Your task to perform on an android device: allow notifications from all sites in the chrome app Image 0: 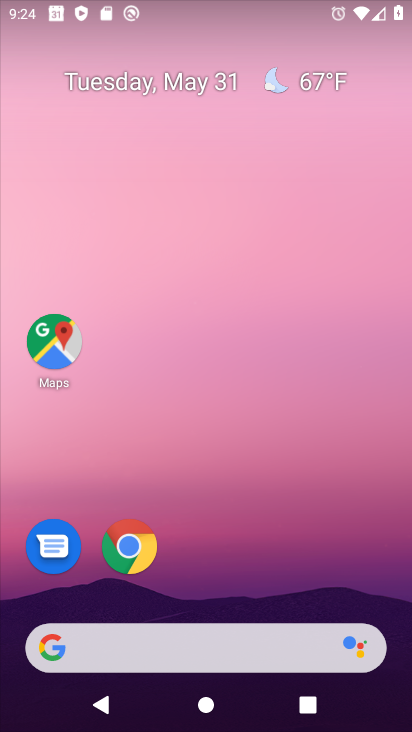
Step 0: click (133, 548)
Your task to perform on an android device: allow notifications from all sites in the chrome app Image 1: 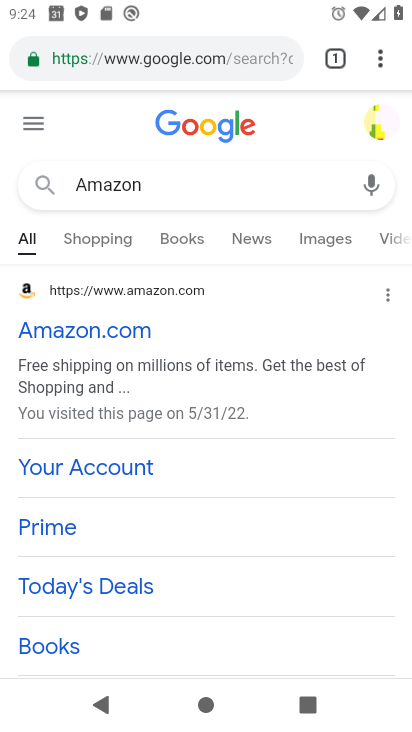
Step 1: click (386, 63)
Your task to perform on an android device: allow notifications from all sites in the chrome app Image 2: 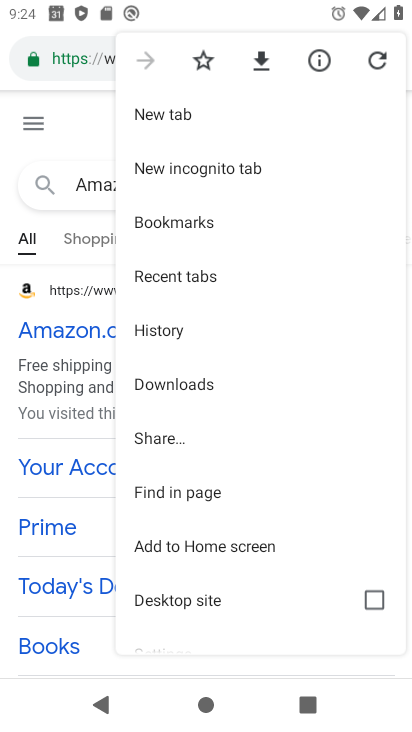
Step 2: drag from (169, 617) to (200, 393)
Your task to perform on an android device: allow notifications from all sites in the chrome app Image 3: 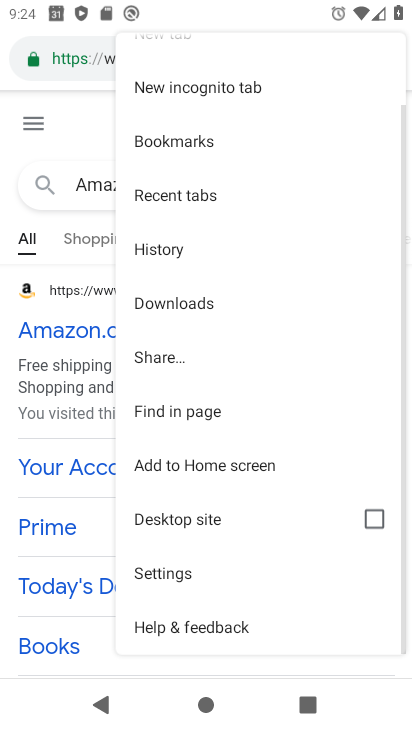
Step 3: click (177, 566)
Your task to perform on an android device: allow notifications from all sites in the chrome app Image 4: 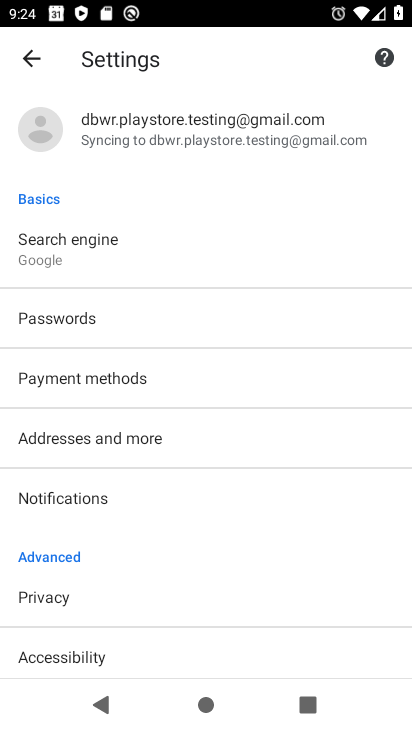
Step 4: drag from (132, 528) to (144, 418)
Your task to perform on an android device: allow notifications from all sites in the chrome app Image 5: 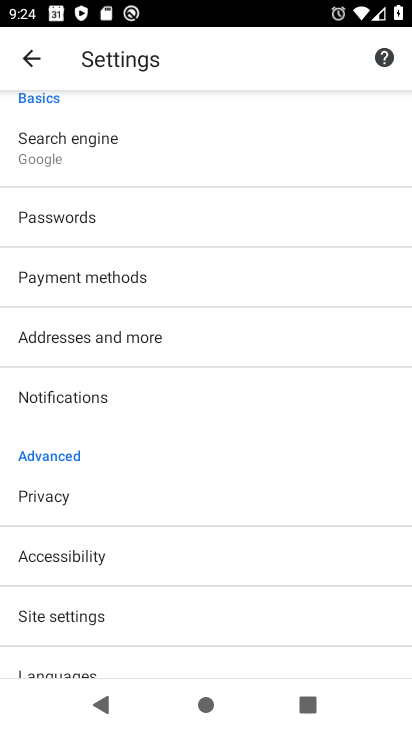
Step 5: drag from (93, 596) to (104, 509)
Your task to perform on an android device: allow notifications from all sites in the chrome app Image 6: 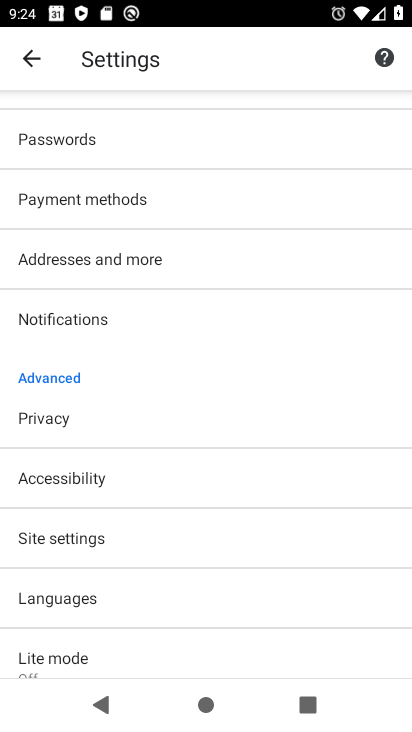
Step 6: click (87, 320)
Your task to perform on an android device: allow notifications from all sites in the chrome app Image 7: 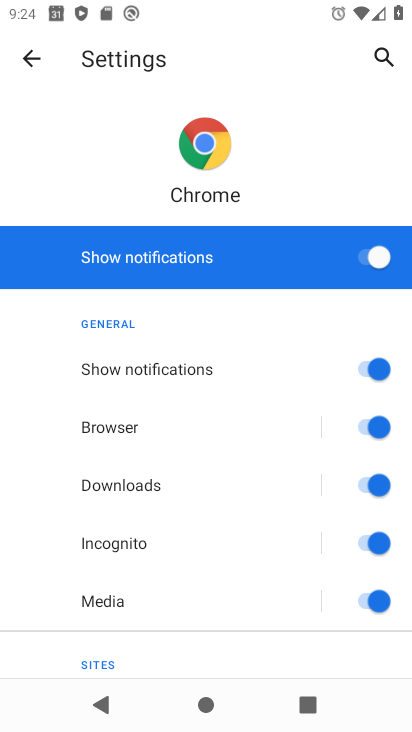
Step 7: click (353, 252)
Your task to perform on an android device: allow notifications from all sites in the chrome app Image 8: 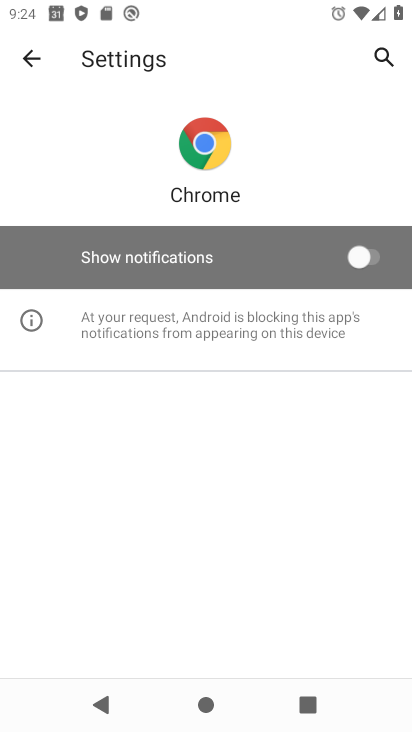
Step 8: task complete